Your task to perform on an android device: When is my next meeting? Image 0: 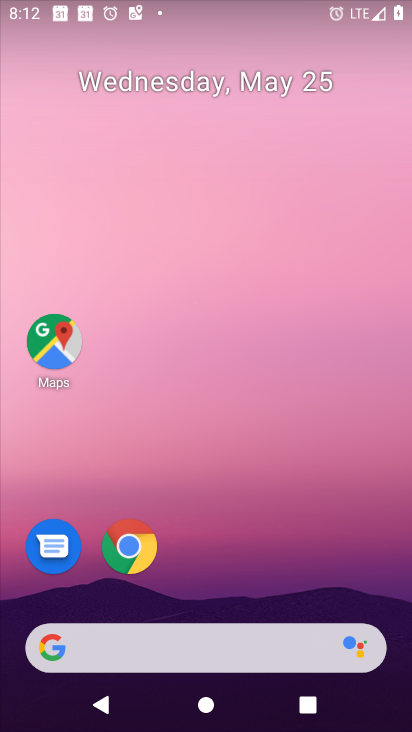
Step 0: drag from (381, 583) to (384, 324)
Your task to perform on an android device: When is my next meeting? Image 1: 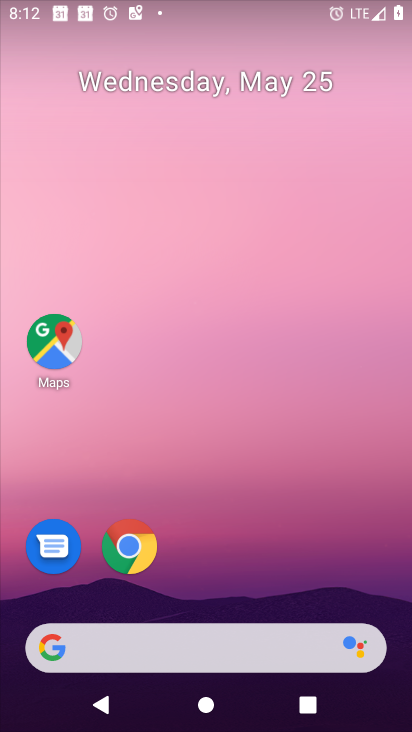
Step 1: drag from (369, 518) to (374, 184)
Your task to perform on an android device: When is my next meeting? Image 2: 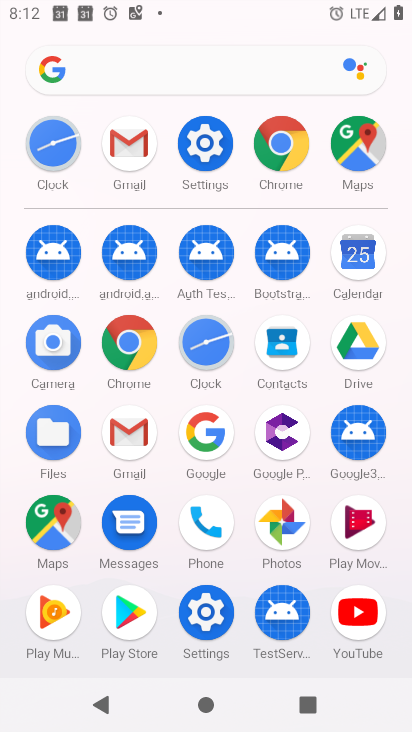
Step 2: click (358, 259)
Your task to perform on an android device: When is my next meeting? Image 3: 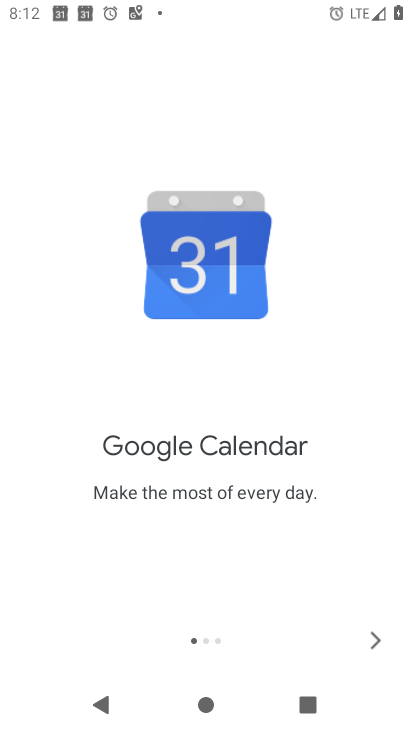
Step 3: click (370, 634)
Your task to perform on an android device: When is my next meeting? Image 4: 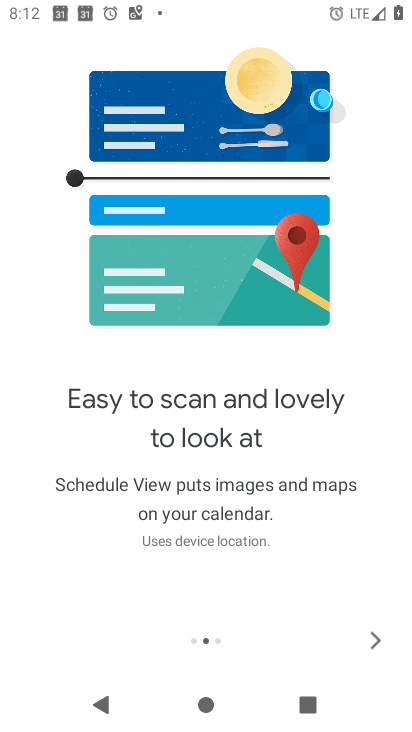
Step 4: click (370, 634)
Your task to perform on an android device: When is my next meeting? Image 5: 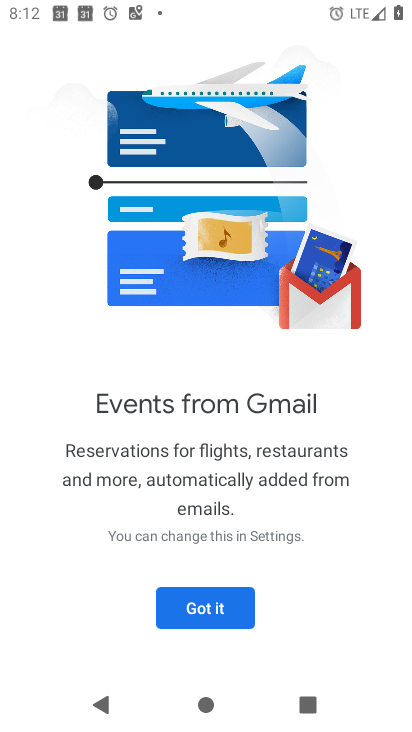
Step 5: click (221, 604)
Your task to perform on an android device: When is my next meeting? Image 6: 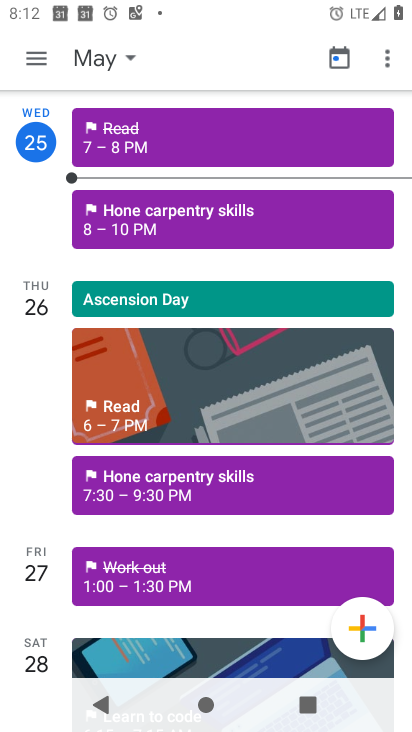
Step 6: click (178, 486)
Your task to perform on an android device: When is my next meeting? Image 7: 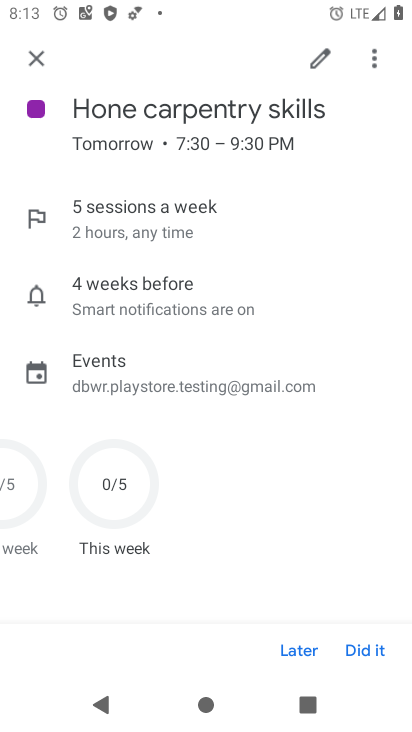
Step 7: task complete